Your task to perform on an android device: Go to Yahoo.com Image 0: 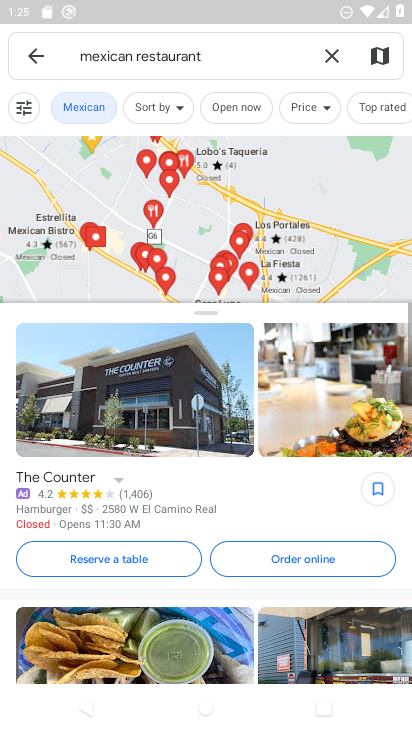
Step 0: press home button
Your task to perform on an android device: Go to Yahoo.com Image 1: 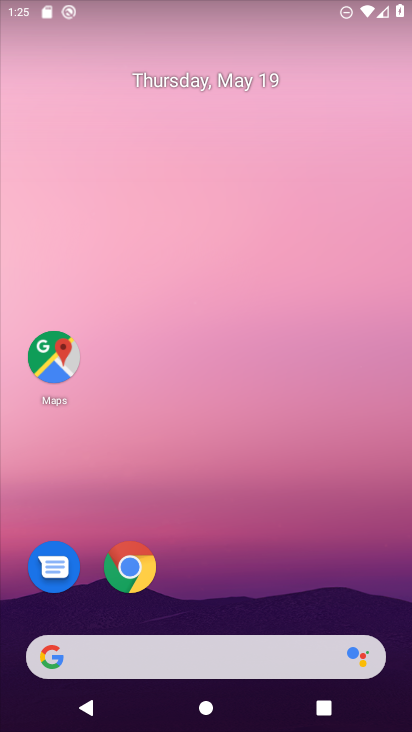
Step 1: click (123, 564)
Your task to perform on an android device: Go to Yahoo.com Image 2: 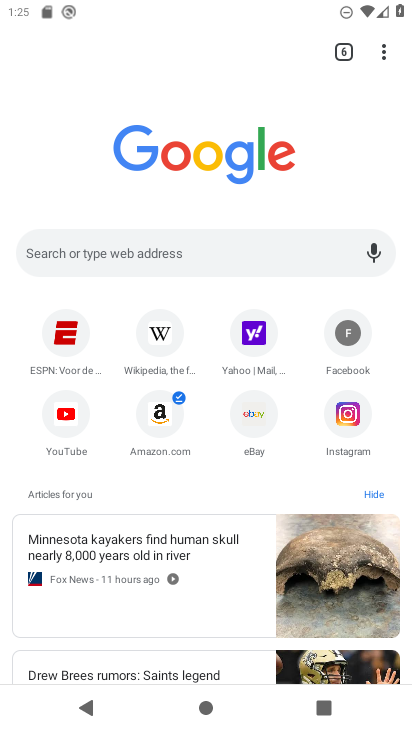
Step 2: click (343, 53)
Your task to perform on an android device: Go to Yahoo.com Image 3: 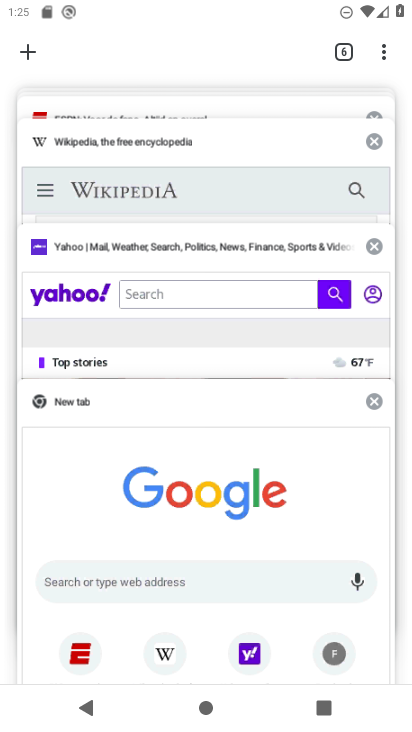
Step 3: click (231, 270)
Your task to perform on an android device: Go to Yahoo.com Image 4: 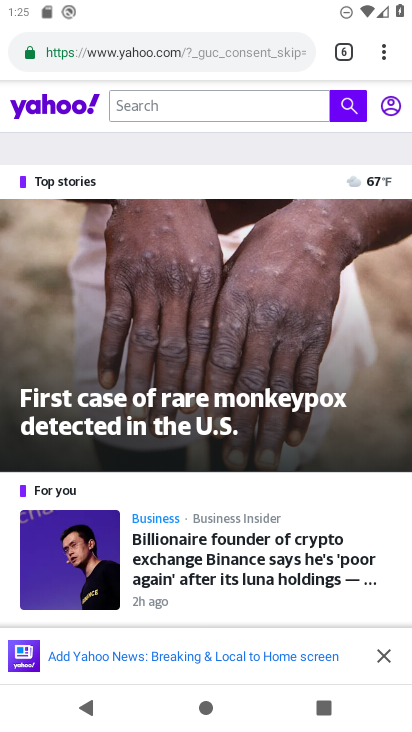
Step 4: task complete